Your task to perform on an android device: change the clock display to analog Image 0: 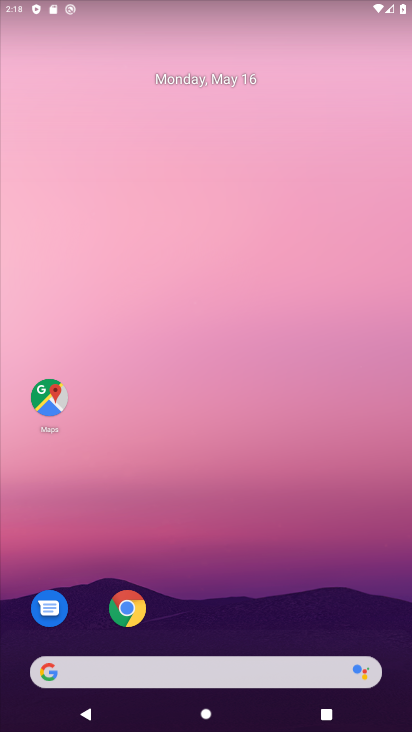
Step 0: drag from (246, 496) to (244, 0)
Your task to perform on an android device: change the clock display to analog Image 1: 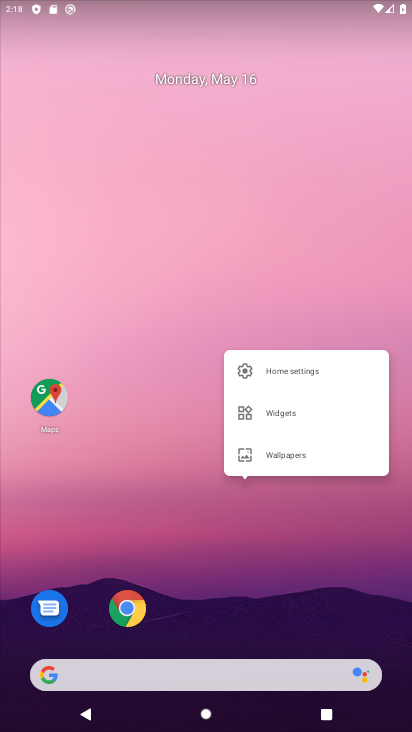
Step 1: drag from (245, 623) to (176, 57)
Your task to perform on an android device: change the clock display to analog Image 2: 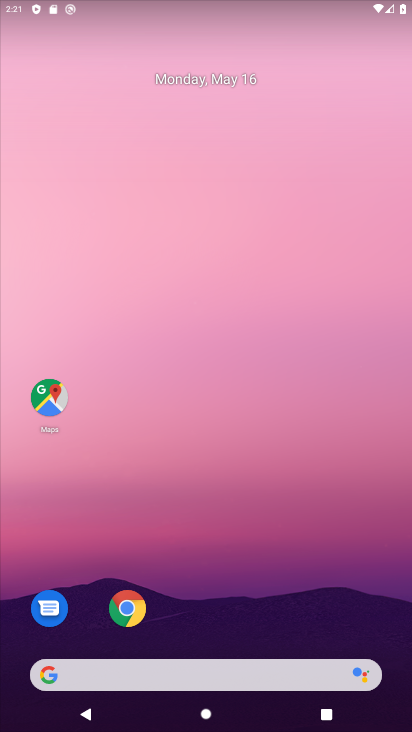
Step 2: drag from (238, 627) to (342, 31)
Your task to perform on an android device: change the clock display to analog Image 3: 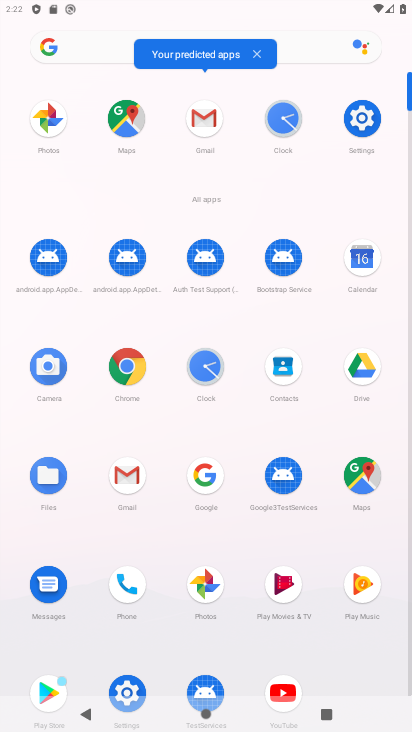
Step 3: click (281, 132)
Your task to perform on an android device: change the clock display to analog Image 4: 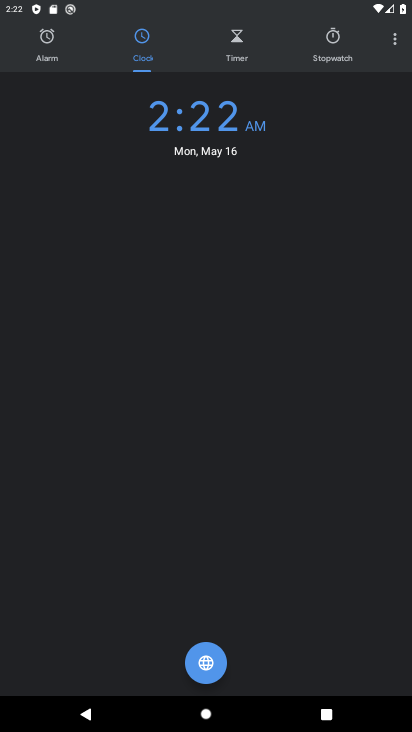
Step 4: click (404, 49)
Your task to perform on an android device: change the clock display to analog Image 5: 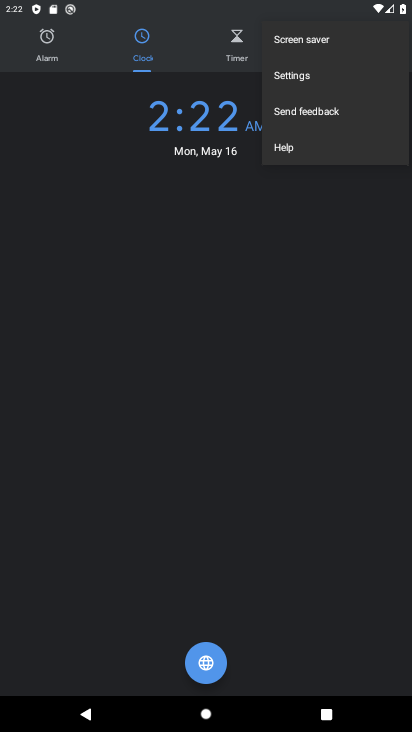
Step 5: click (332, 82)
Your task to perform on an android device: change the clock display to analog Image 6: 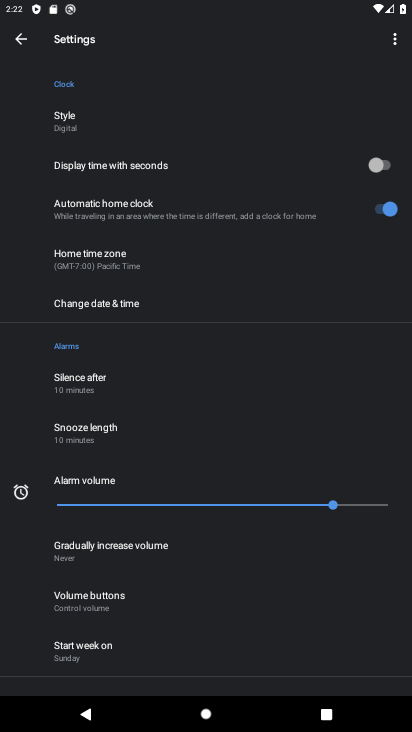
Step 6: drag from (241, 479) to (261, 151)
Your task to perform on an android device: change the clock display to analog Image 7: 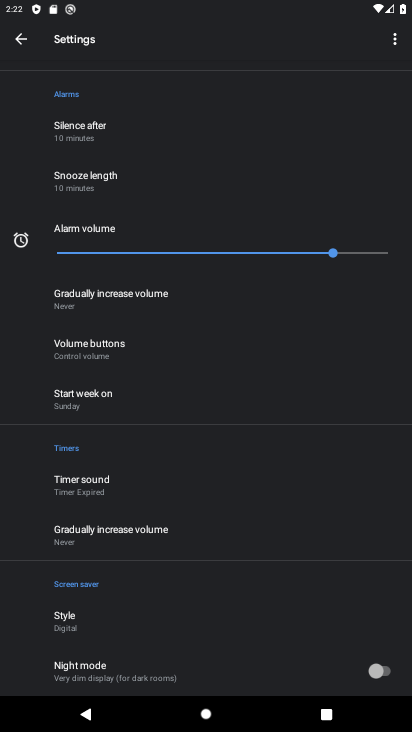
Step 7: drag from (231, 561) to (252, 158)
Your task to perform on an android device: change the clock display to analog Image 8: 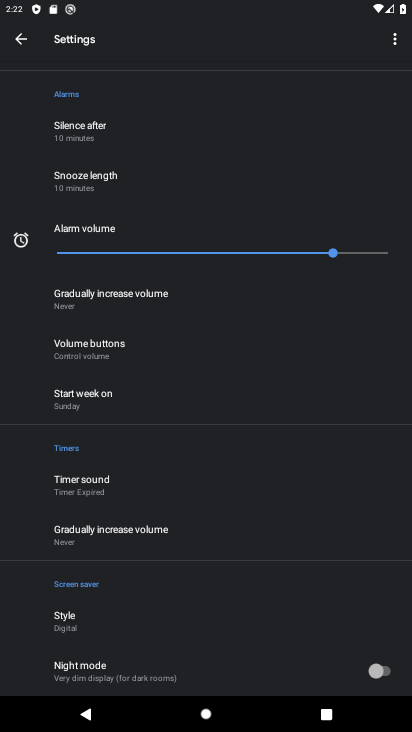
Step 8: click (141, 616)
Your task to perform on an android device: change the clock display to analog Image 9: 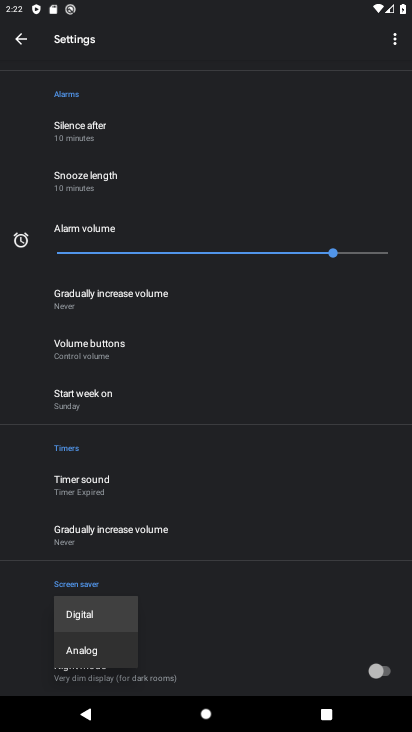
Step 9: click (99, 645)
Your task to perform on an android device: change the clock display to analog Image 10: 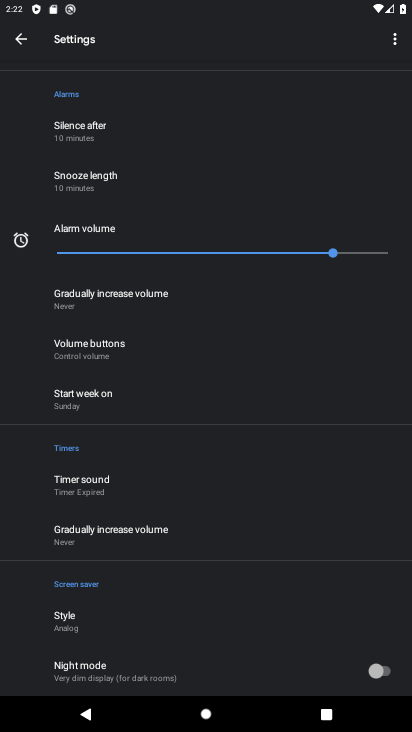
Step 10: task complete